Your task to perform on an android device: star an email in the gmail app Image 0: 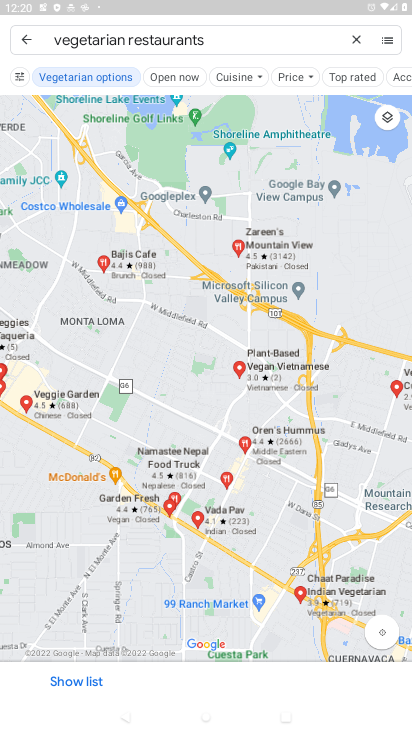
Step 0: task complete